Your task to perform on an android device: change alarm snooze length Image 0: 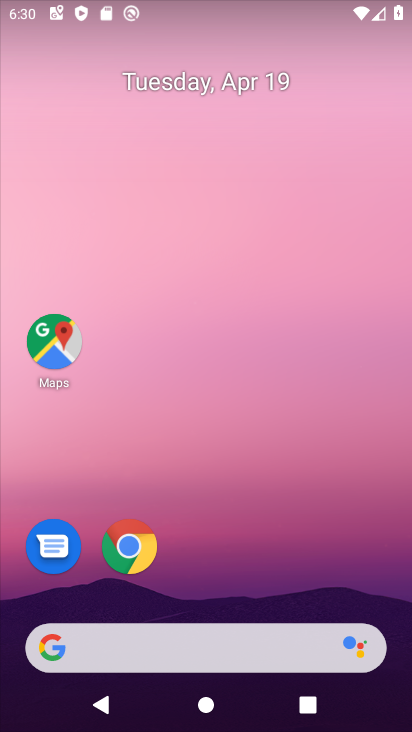
Step 0: drag from (283, 545) to (251, 49)
Your task to perform on an android device: change alarm snooze length Image 1: 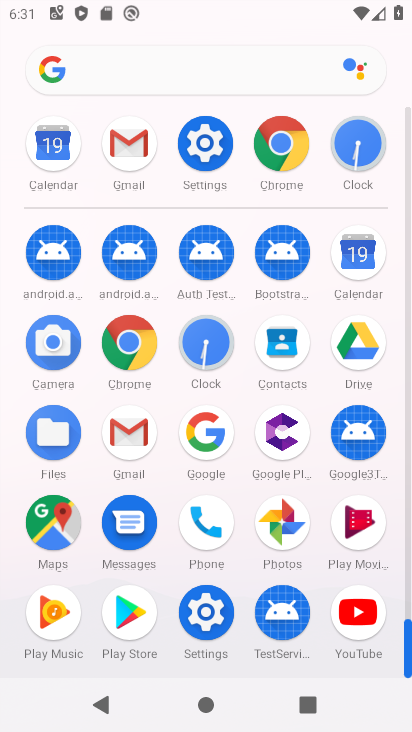
Step 1: click (208, 343)
Your task to perform on an android device: change alarm snooze length Image 2: 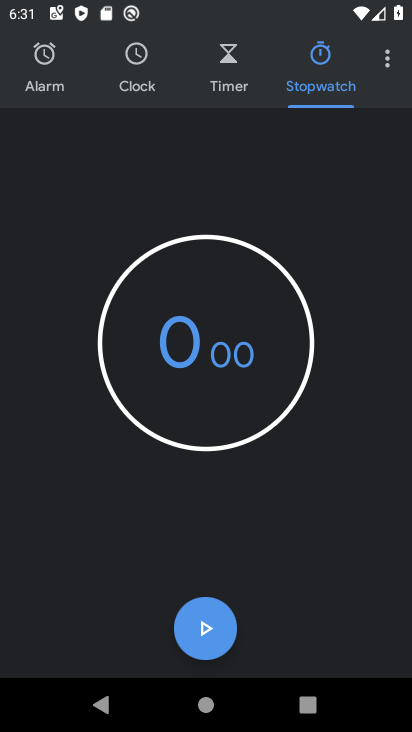
Step 2: click (392, 54)
Your task to perform on an android device: change alarm snooze length Image 3: 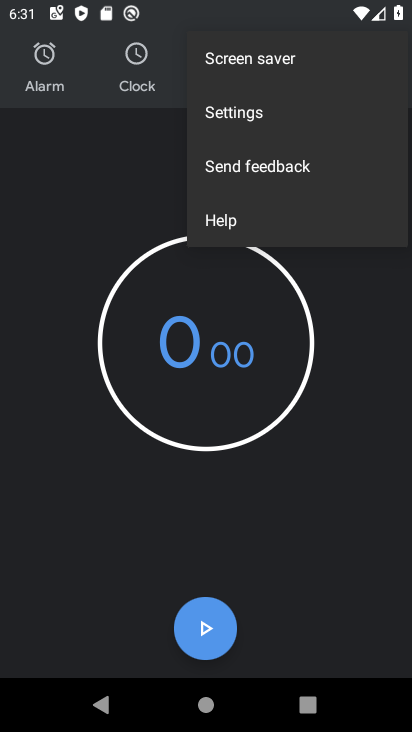
Step 3: click (242, 102)
Your task to perform on an android device: change alarm snooze length Image 4: 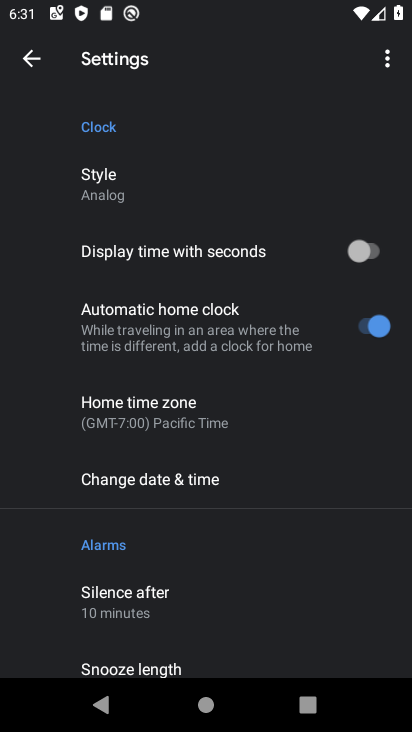
Step 4: drag from (232, 544) to (279, 151)
Your task to perform on an android device: change alarm snooze length Image 5: 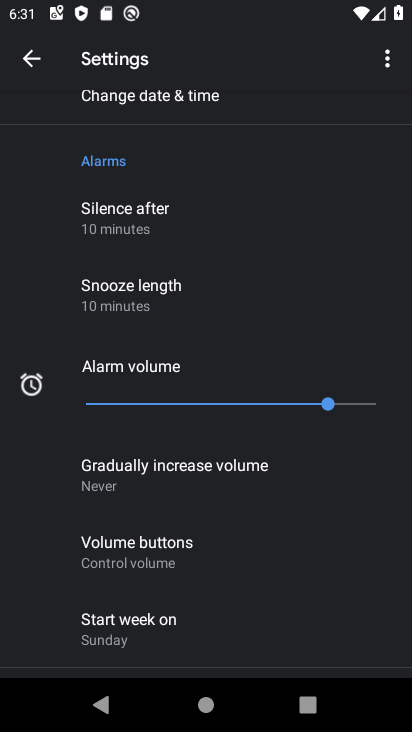
Step 5: click (128, 288)
Your task to perform on an android device: change alarm snooze length Image 6: 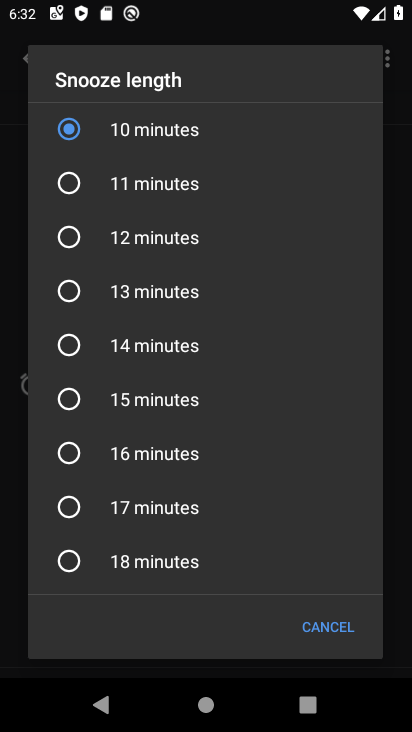
Step 6: click (146, 188)
Your task to perform on an android device: change alarm snooze length Image 7: 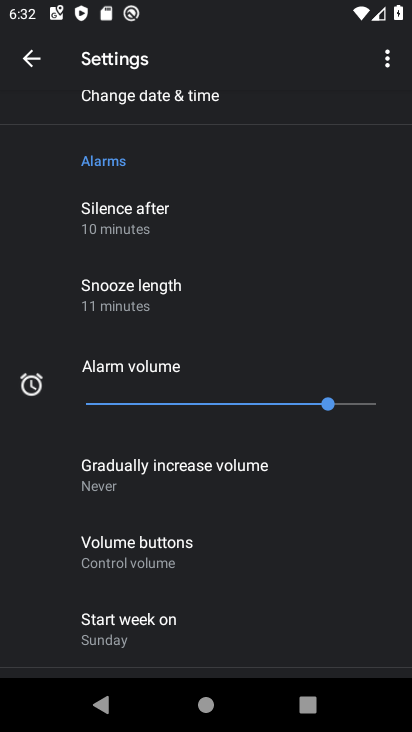
Step 7: task complete